Your task to perform on an android device: uninstall "ColorNote Notepad Notes" Image 0: 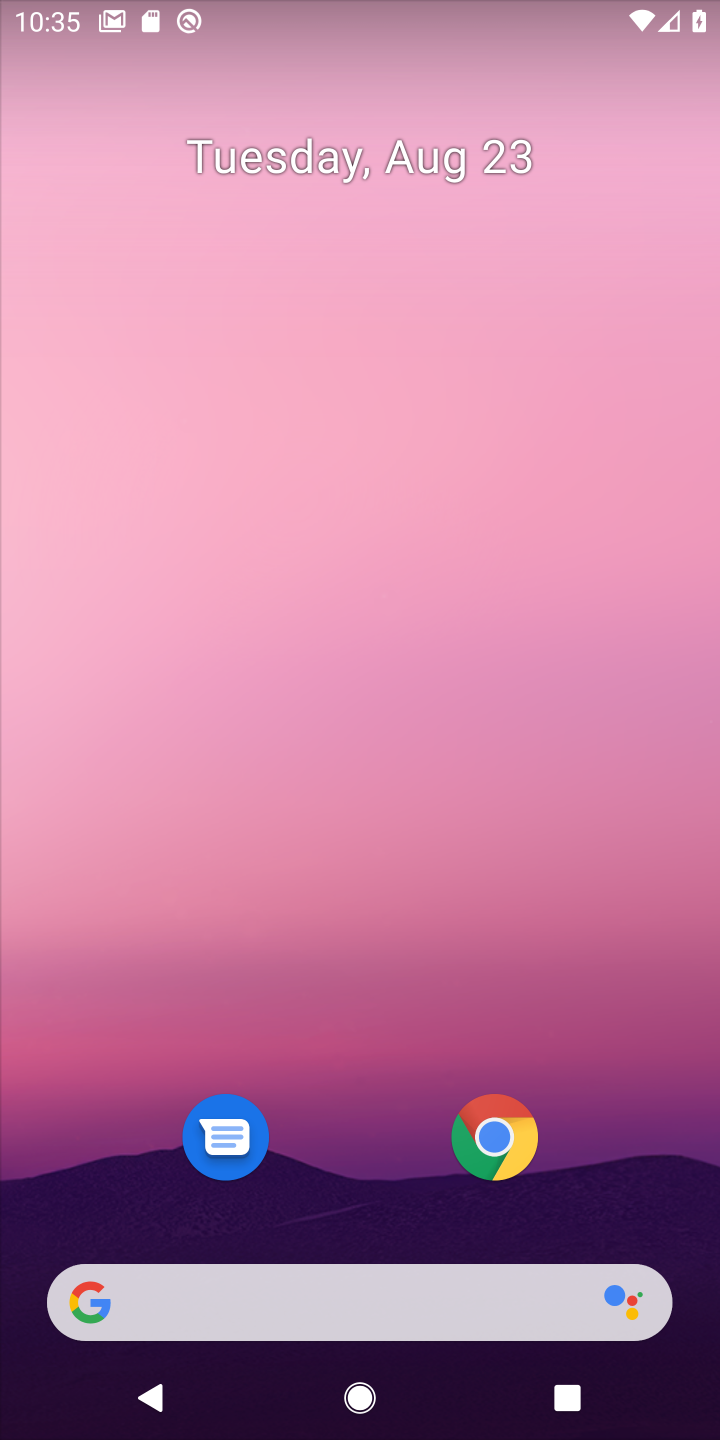
Step 0: drag from (365, 988) to (377, 718)
Your task to perform on an android device: uninstall "ColorNote Notepad Notes" Image 1: 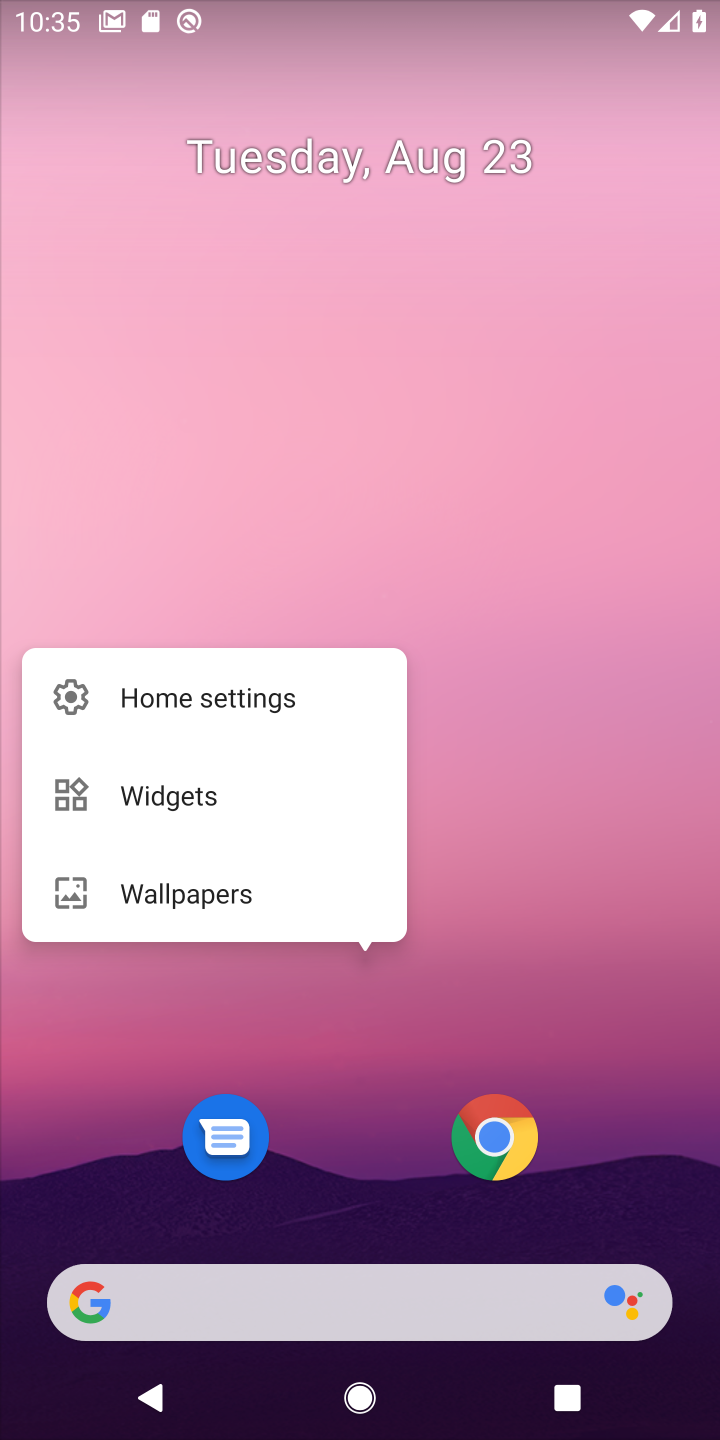
Step 1: click (411, 1031)
Your task to perform on an android device: uninstall "ColorNote Notepad Notes" Image 2: 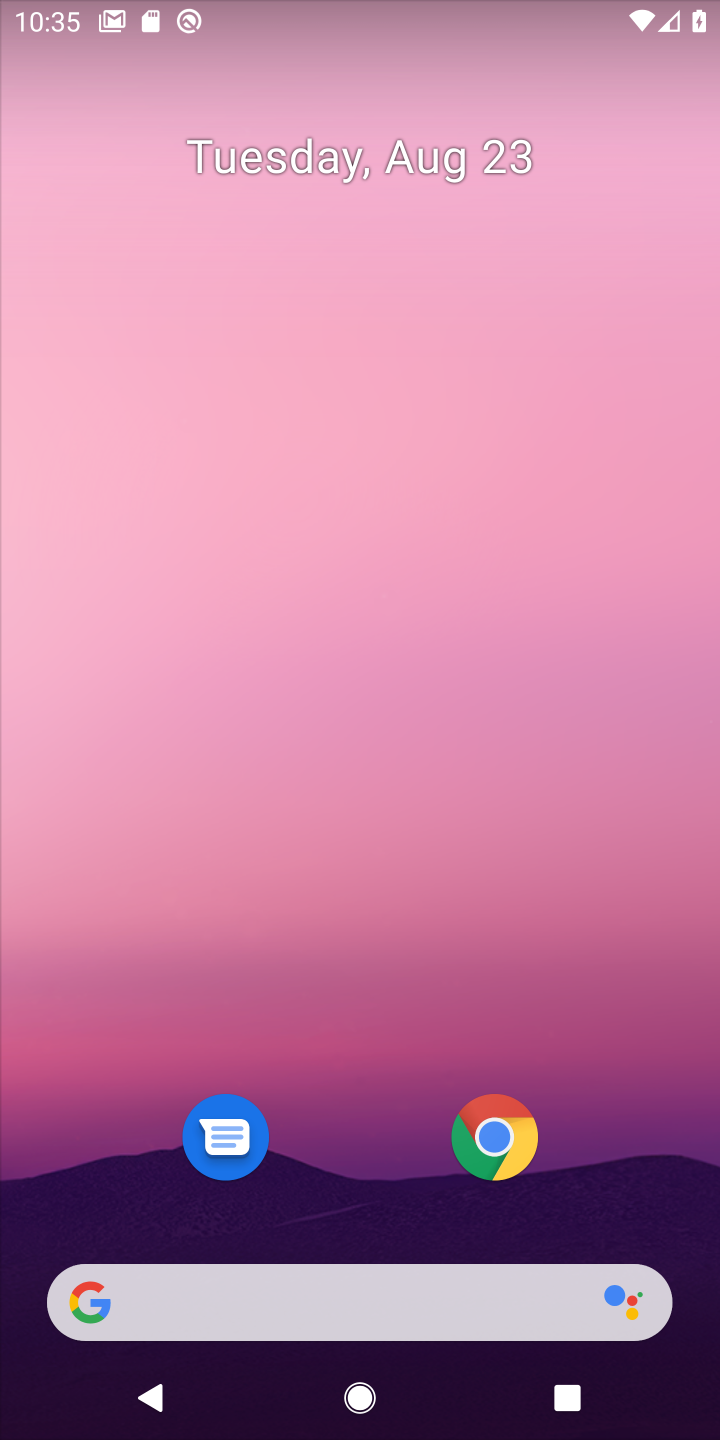
Step 2: drag from (295, 1222) to (350, 1)
Your task to perform on an android device: uninstall "ColorNote Notepad Notes" Image 3: 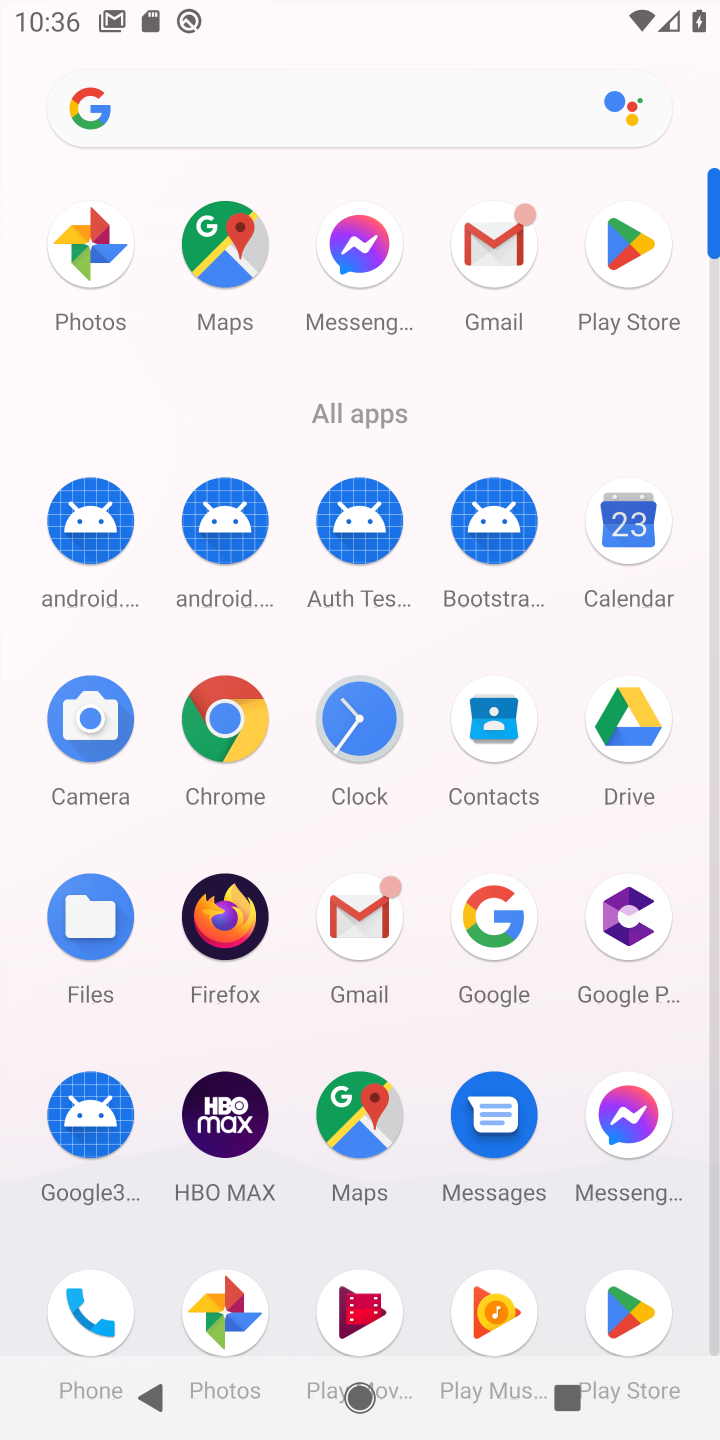
Step 3: click (613, 255)
Your task to perform on an android device: uninstall "ColorNote Notepad Notes" Image 4: 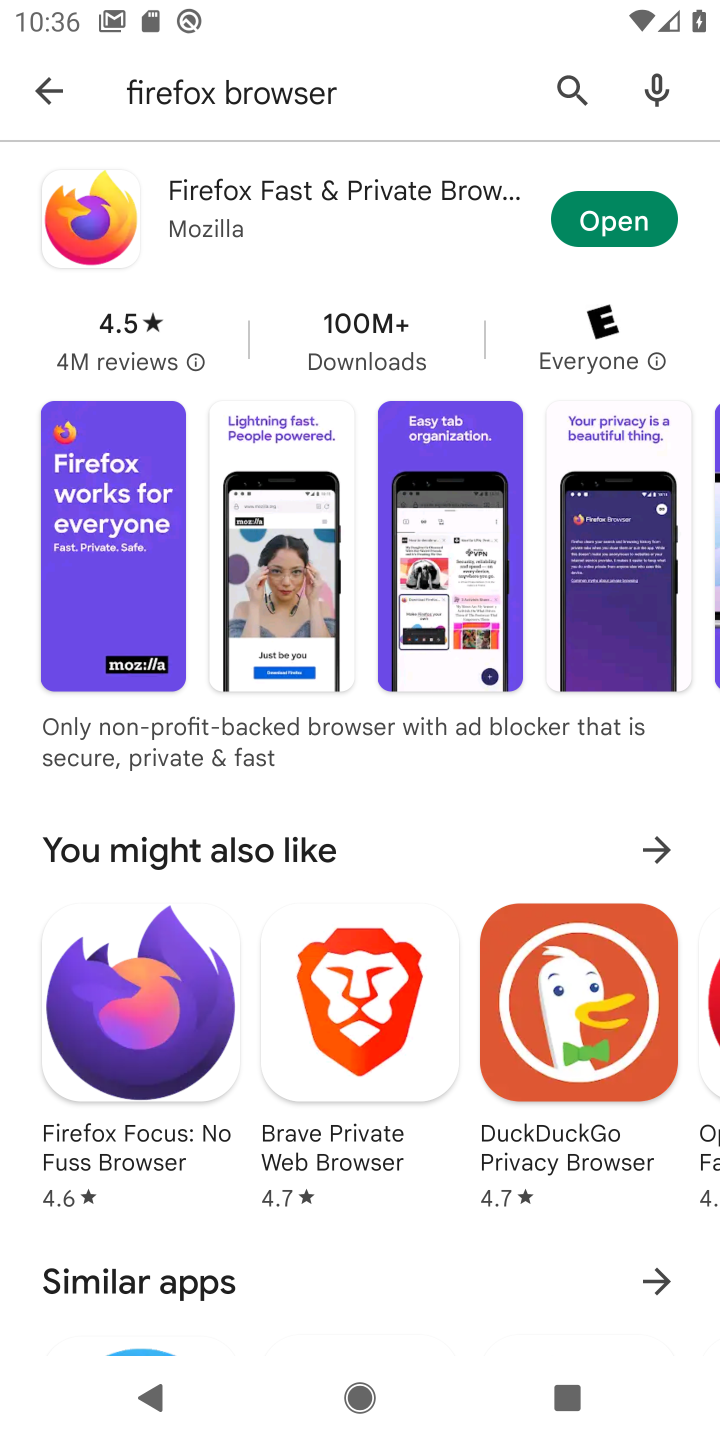
Step 4: click (374, 89)
Your task to perform on an android device: uninstall "ColorNote Notepad Notes" Image 5: 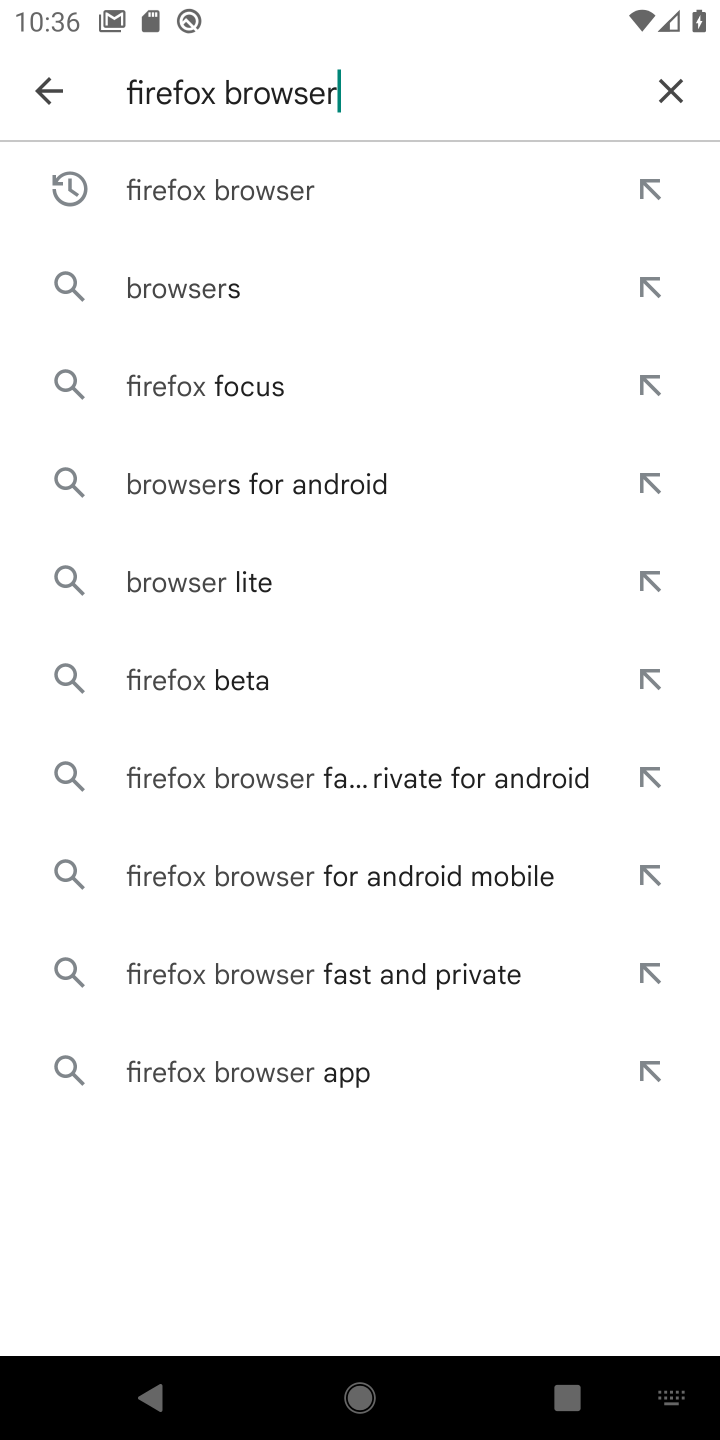
Step 5: click (382, 85)
Your task to perform on an android device: uninstall "ColorNote Notepad Notes" Image 6: 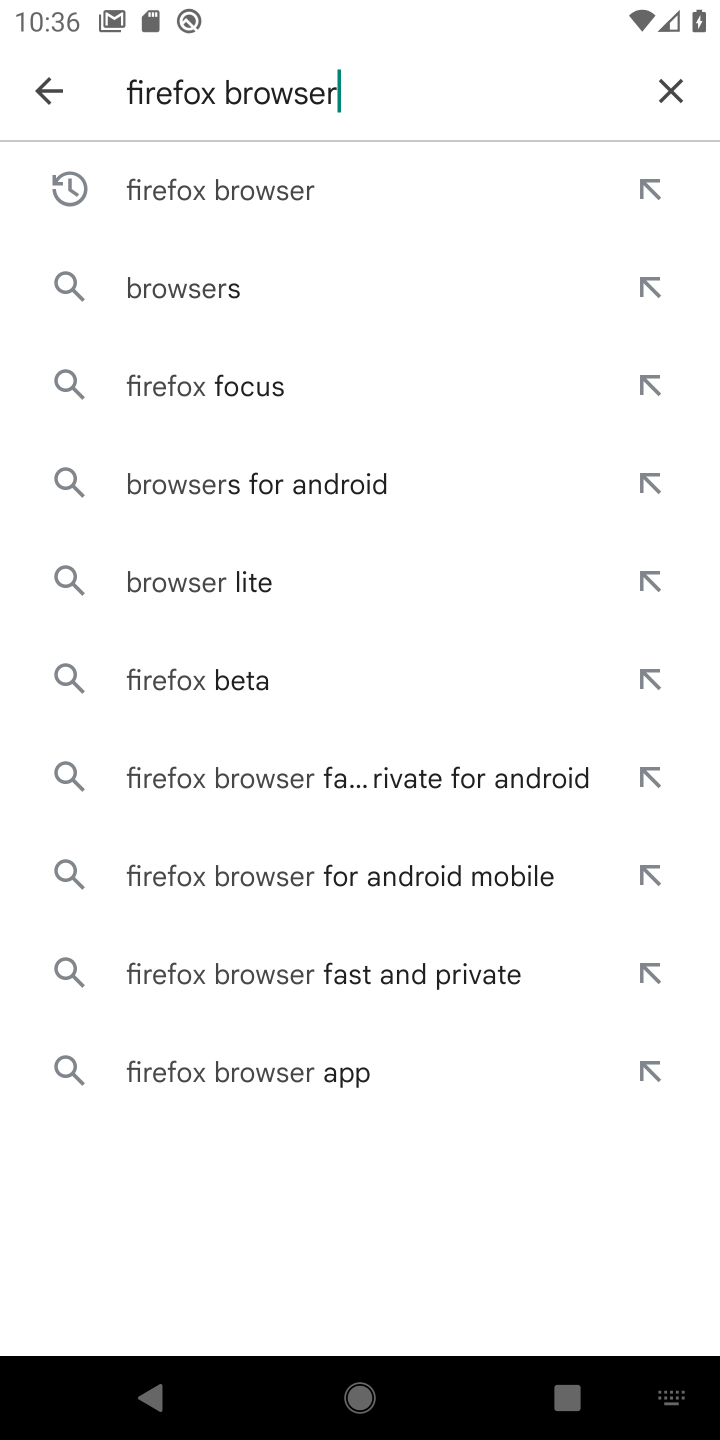
Step 6: click (664, 67)
Your task to perform on an android device: uninstall "ColorNote Notepad Notes" Image 7: 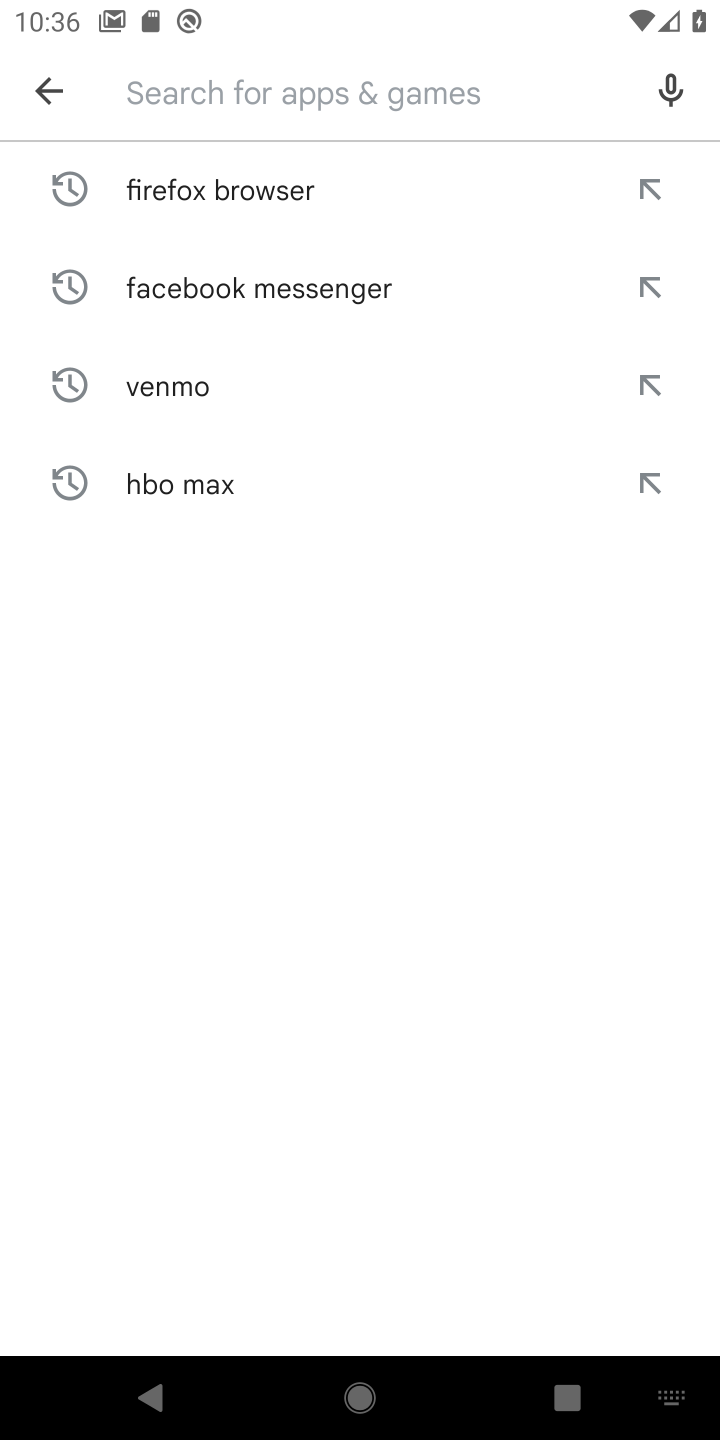
Step 7: type "colornote notepad notes"
Your task to perform on an android device: uninstall "ColorNote Notepad Notes" Image 8: 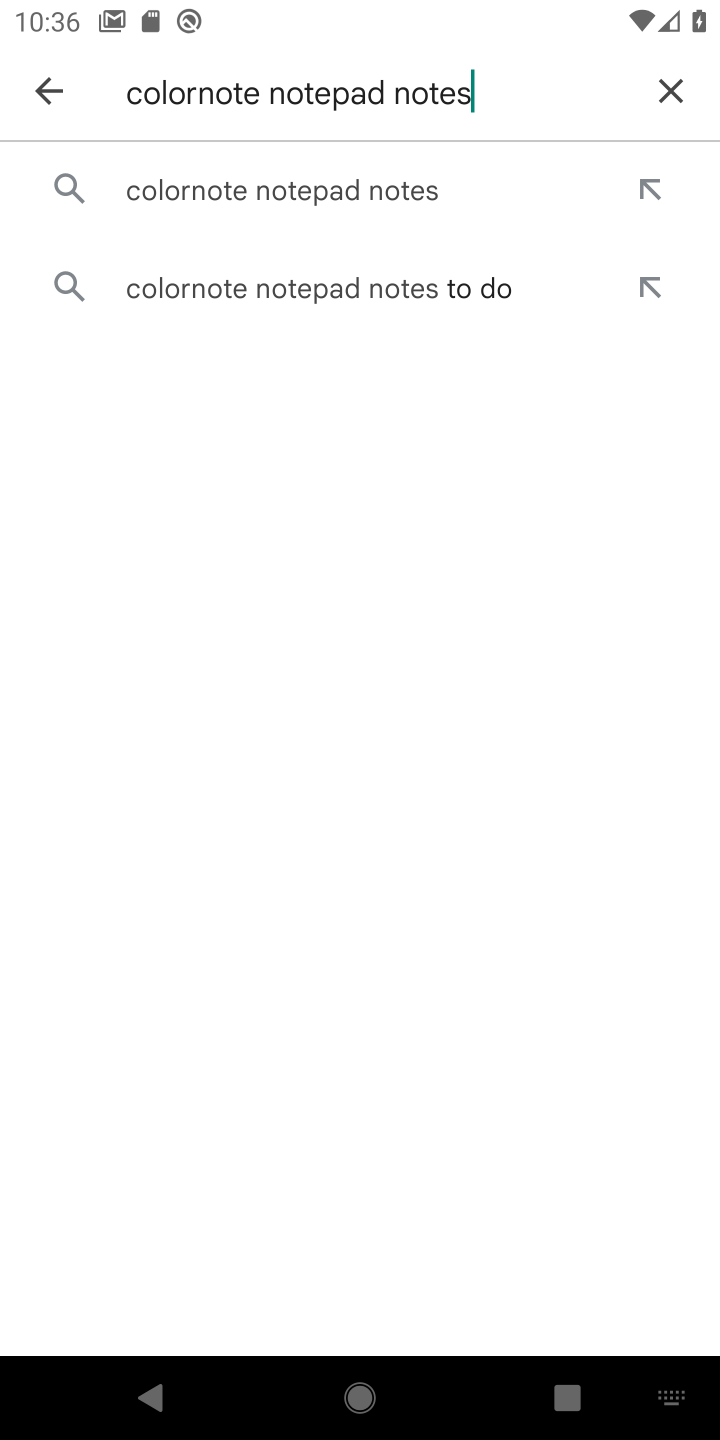
Step 8: click (363, 192)
Your task to perform on an android device: uninstall "ColorNote Notepad Notes" Image 9: 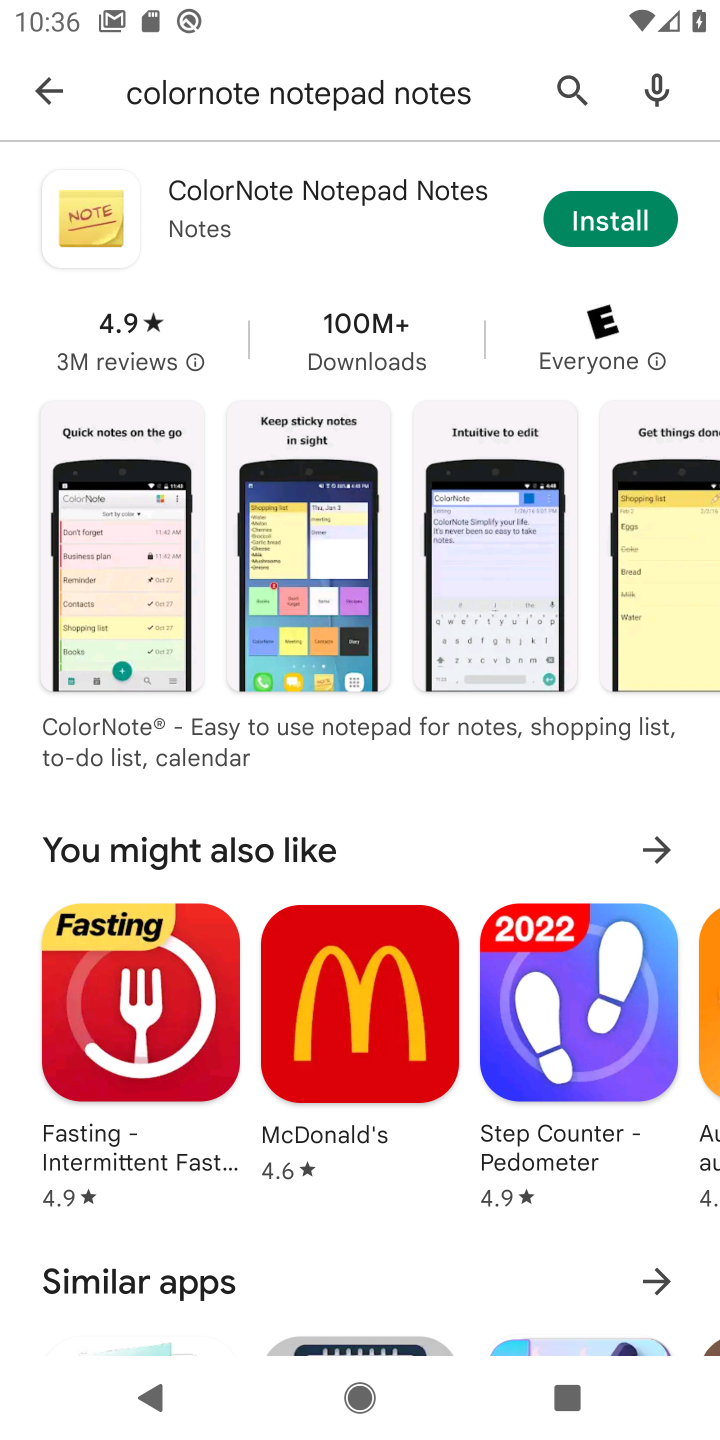
Step 9: task complete